Your task to perform on an android device: add a contact in the contacts app Image 0: 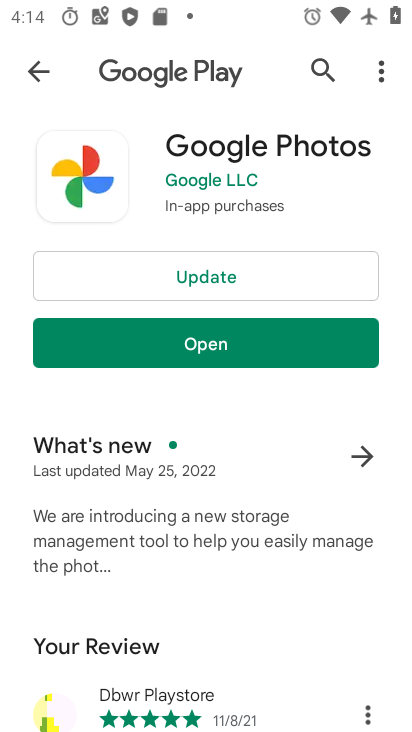
Step 0: press home button
Your task to perform on an android device: add a contact in the contacts app Image 1: 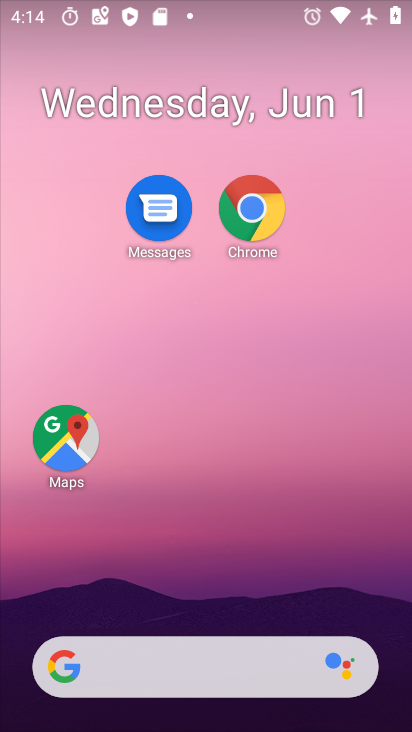
Step 1: drag from (226, 617) to (174, 178)
Your task to perform on an android device: add a contact in the contacts app Image 2: 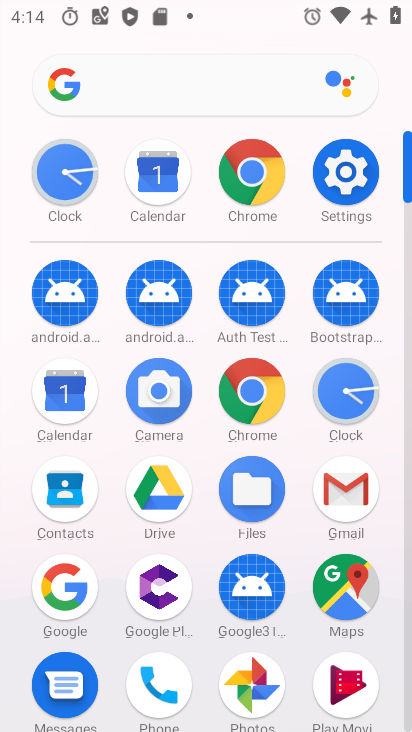
Step 2: click (56, 499)
Your task to perform on an android device: add a contact in the contacts app Image 3: 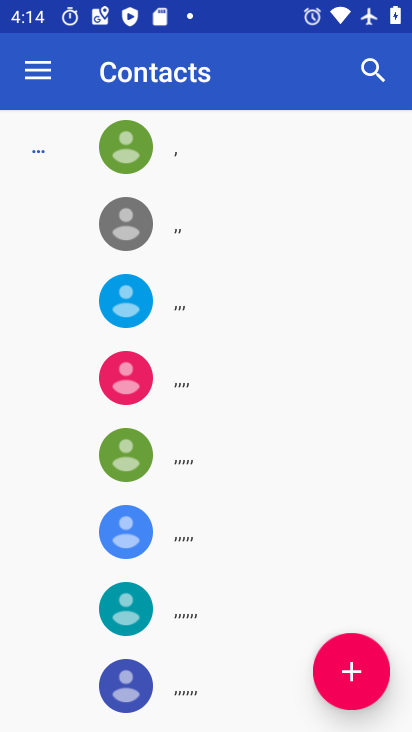
Step 3: click (339, 686)
Your task to perform on an android device: add a contact in the contacts app Image 4: 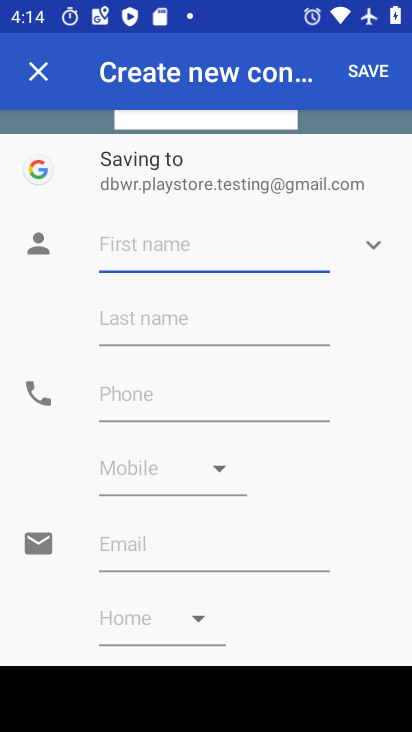
Step 4: type "cfbgjf"
Your task to perform on an android device: add a contact in the contacts app Image 5: 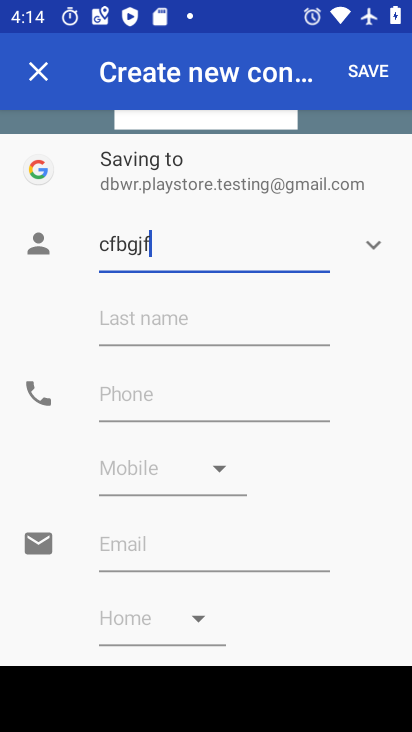
Step 5: click (206, 398)
Your task to perform on an android device: add a contact in the contacts app Image 6: 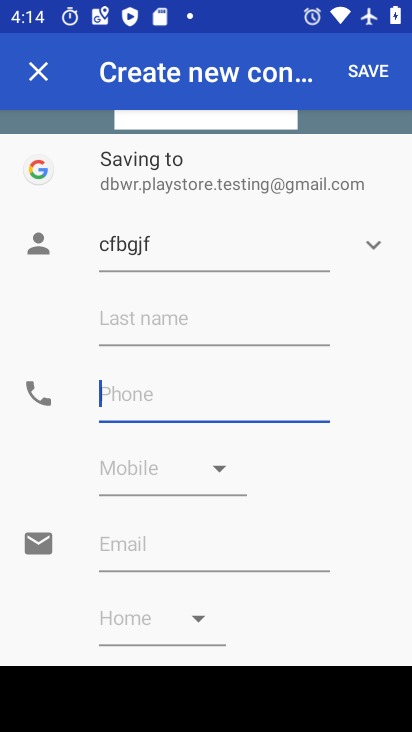
Step 6: type "67597865"
Your task to perform on an android device: add a contact in the contacts app Image 7: 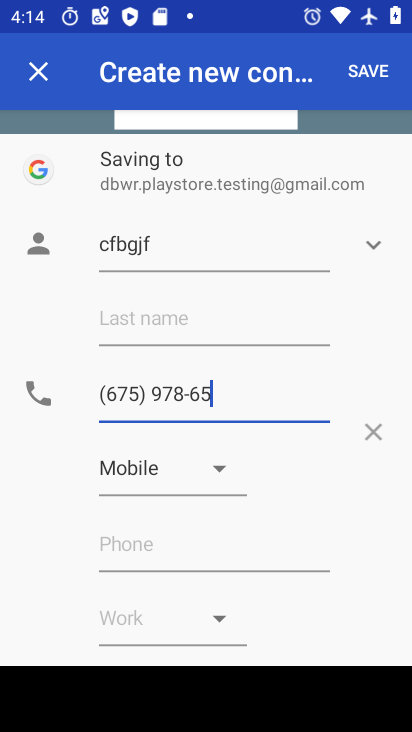
Step 7: click (365, 80)
Your task to perform on an android device: add a contact in the contacts app Image 8: 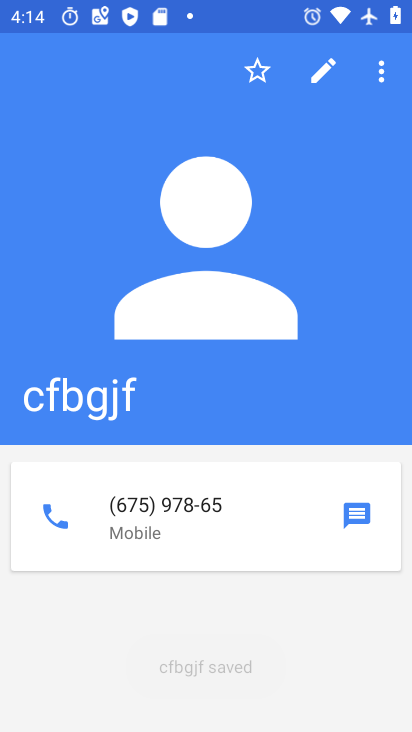
Step 8: task complete